Your task to perform on an android device: Go to Amazon Image 0: 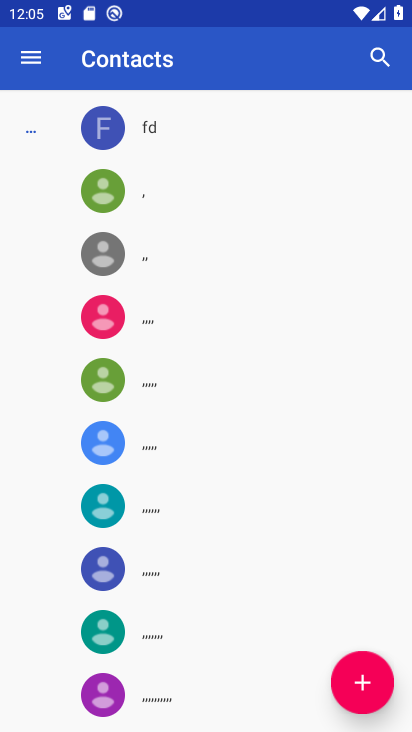
Step 0: press home button
Your task to perform on an android device: Go to Amazon Image 1: 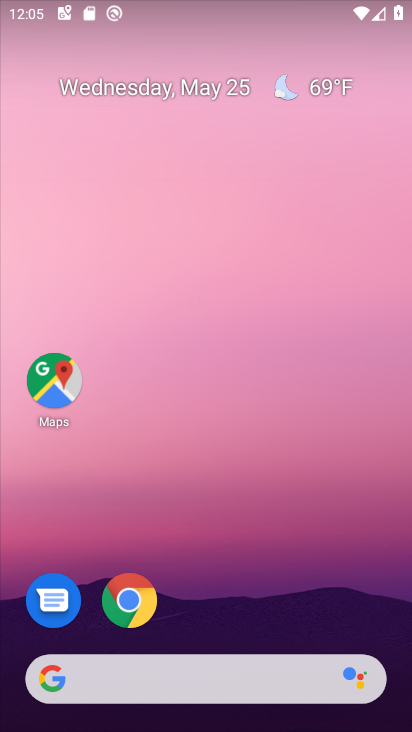
Step 1: drag from (370, 605) to (330, 211)
Your task to perform on an android device: Go to Amazon Image 2: 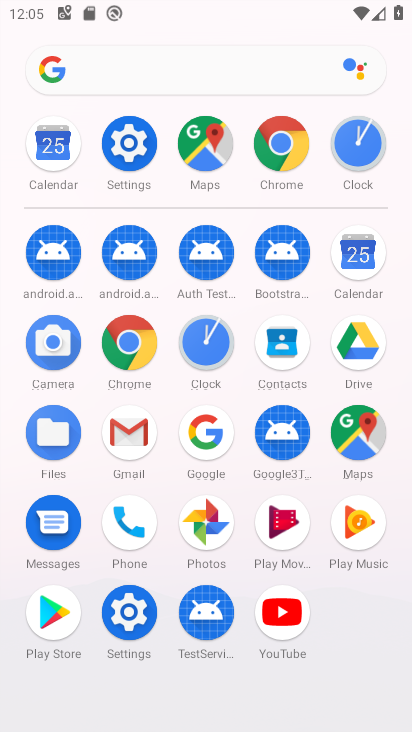
Step 2: click (135, 358)
Your task to perform on an android device: Go to Amazon Image 3: 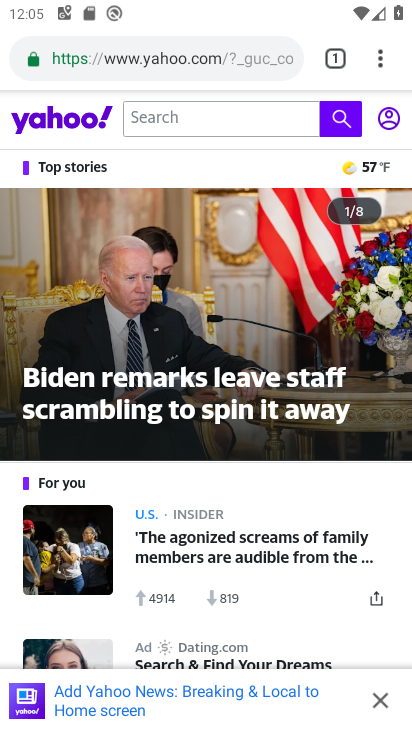
Step 3: press back button
Your task to perform on an android device: Go to Amazon Image 4: 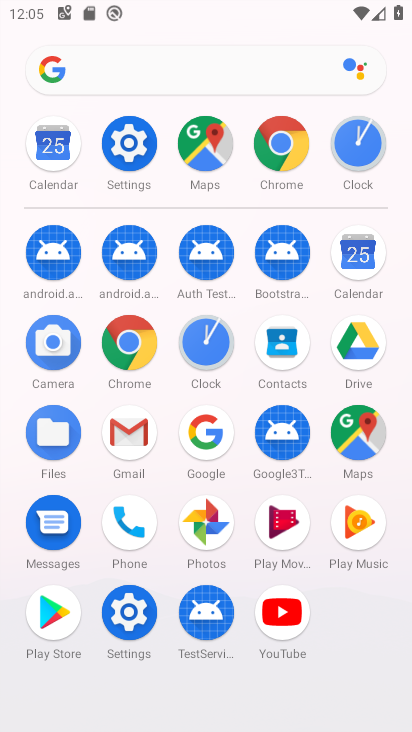
Step 4: click (126, 353)
Your task to perform on an android device: Go to Amazon Image 5: 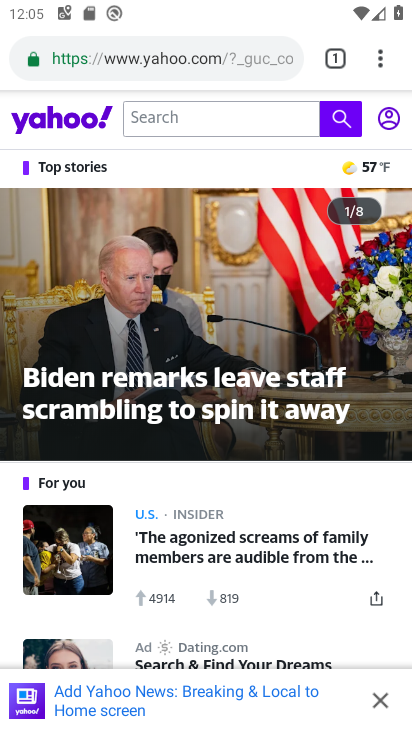
Step 5: click (221, 60)
Your task to perform on an android device: Go to Amazon Image 6: 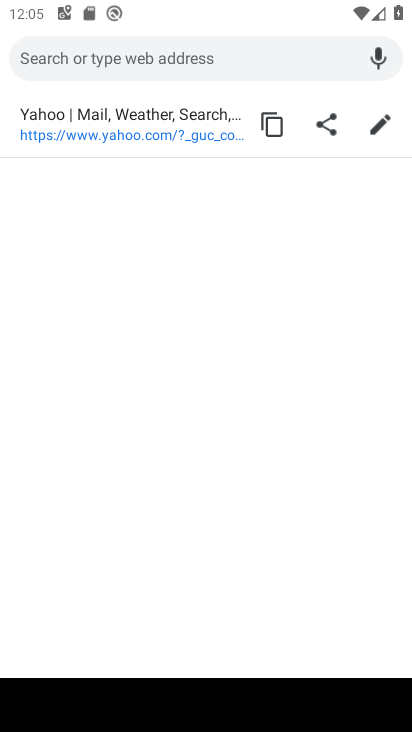
Step 6: type "amazon"
Your task to perform on an android device: Go to Amazon Image 7: 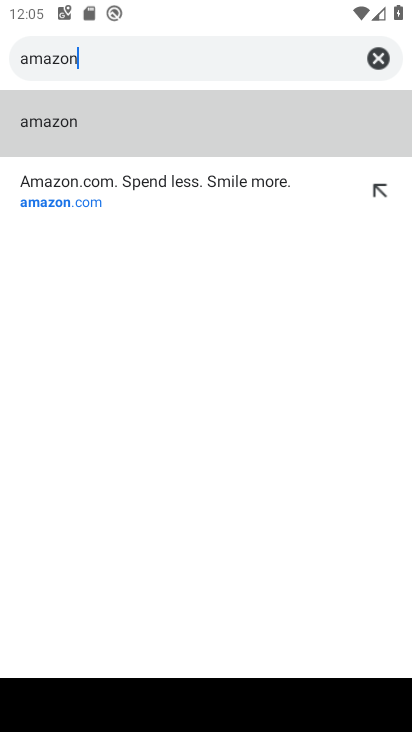
Step 7: click (286, 191)
Your task to perform on an android device: Go to Amazon Image 8: 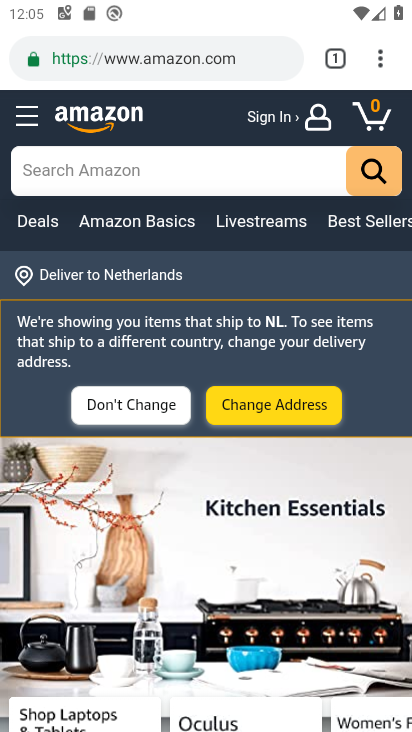
Step 8: task complete